Your task to perform on an android device: Show me popular games on the Play Store Image 0: 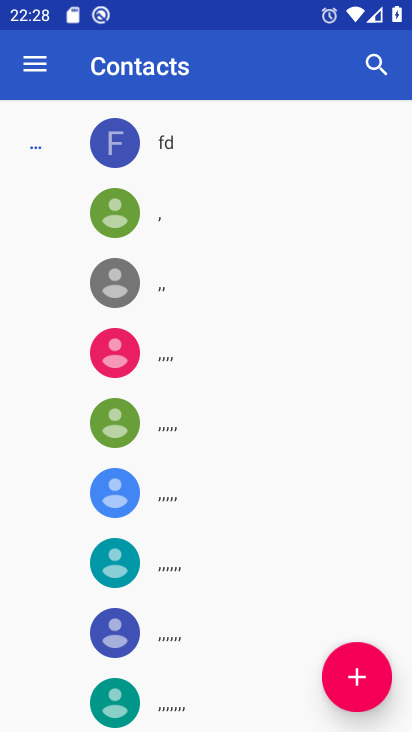
Step 0: press home button
Your task to perform on an android device: Show me popular games on the Play Store Image 1: 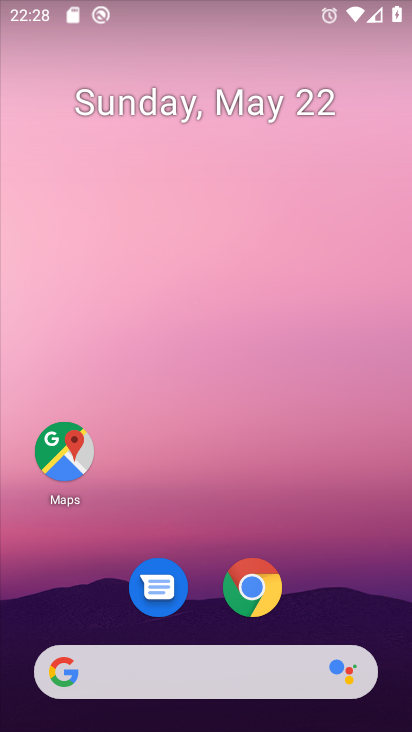
Step 1: drag from (209, 484) to (253, 4)
Your task to perform on an android device: Show me popular games on the Play Store Image 2: 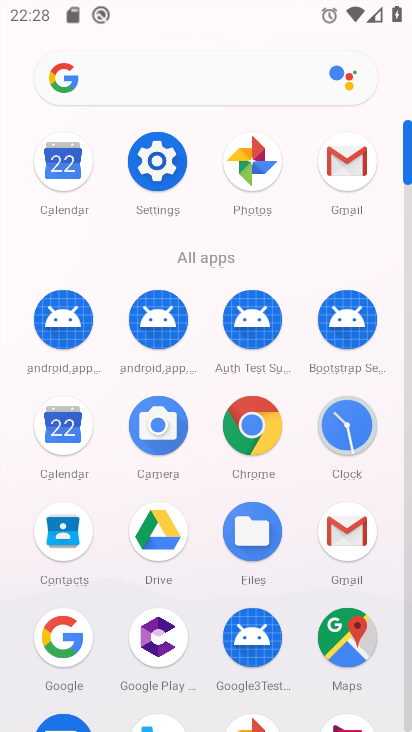
Step 2: drag from (117, 490) to (152, 168)
Your task to perform on an android device: Show me popular games on the Play Store Image 3: 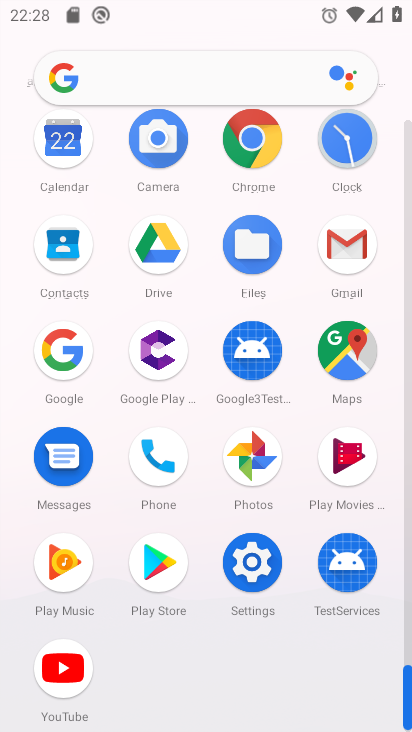
Step 3: click (158, 571)
Your task to perform on an android device: Show me popular games on the Play Store Image 4: 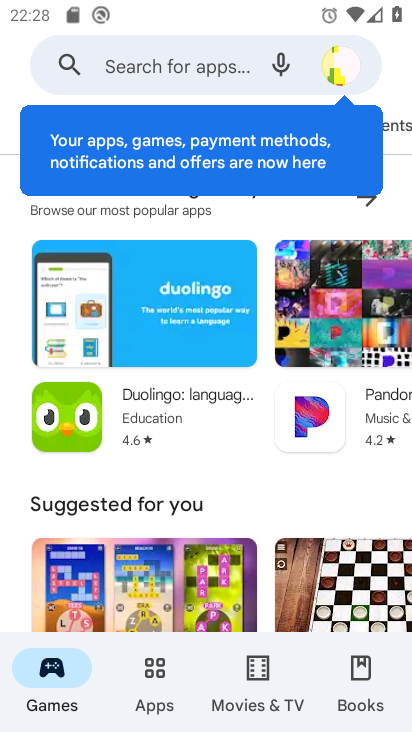
Step 4: drag from (233, 521) to (235, 136)
Your task to perform on an android device: Show me popular games on the Play Store Image 5: 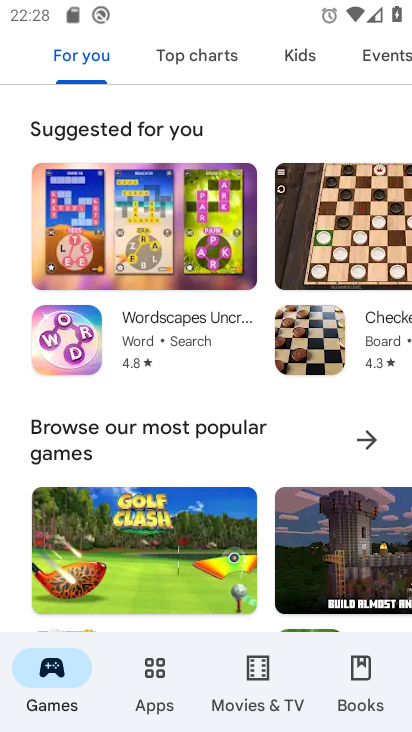
Step 5: click (359, 422)
Your task to perform on an android device: Show me popular games on the Play Store Image 6: 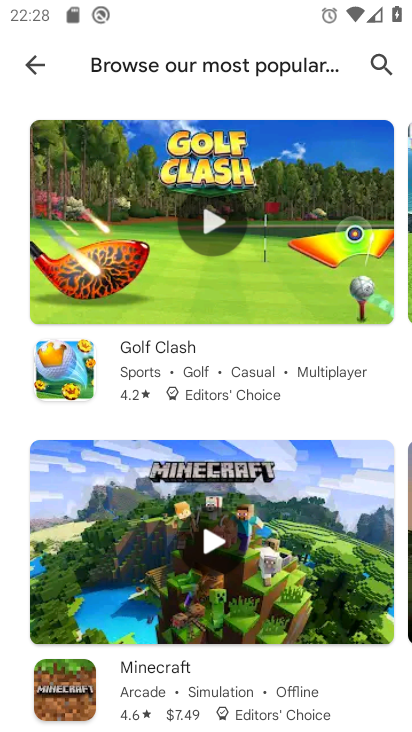
Step 6: task complete